Your task to perform on an android device: check battery use Image 0: 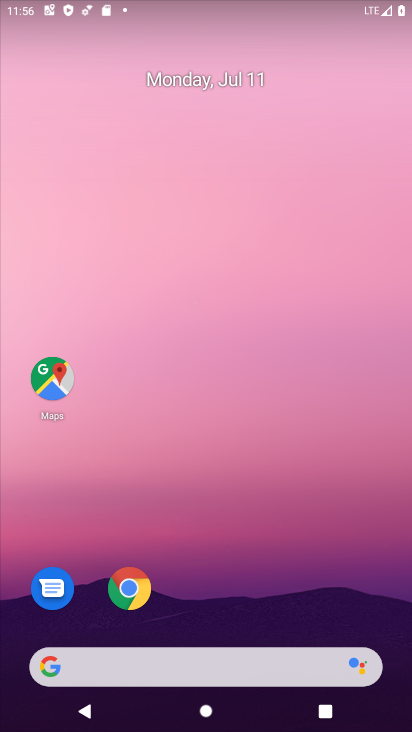
Step 0: drag from (266, 570) to (232, 160)
Your task to perform on an android device: check battery use Image 1: 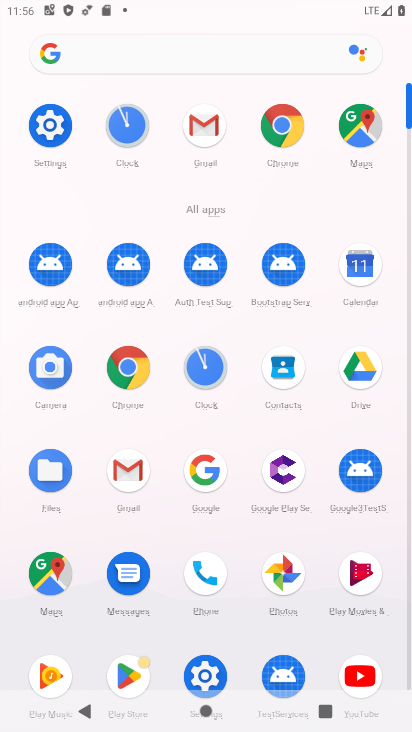
Step 1: click (43, 126)
Your task to perform on an android device: check battery use Image 2: 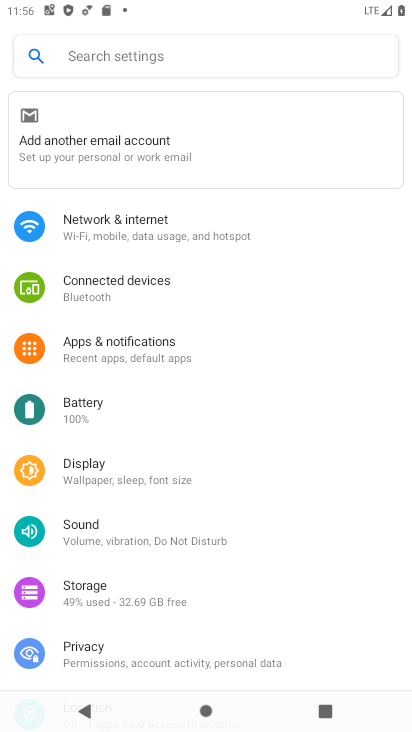
Step 2: drag from (191, 648) to (285, 92)
Your task to perform on an android device: check battery use Image 3: 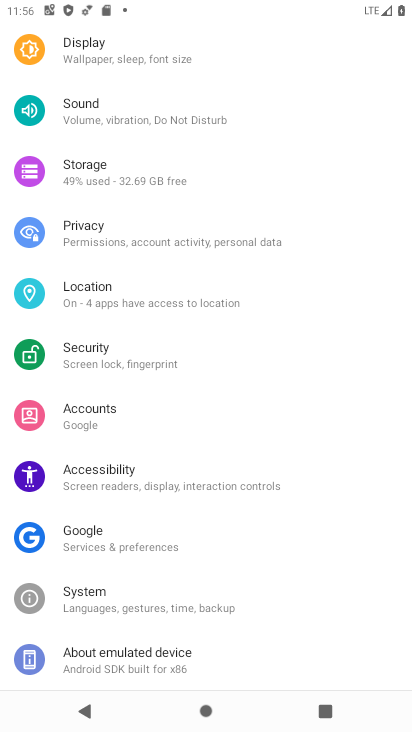
Step 3: drag from (195, 168) to (200, 465)
Your task to perform on an android device: check battery use Image 4: 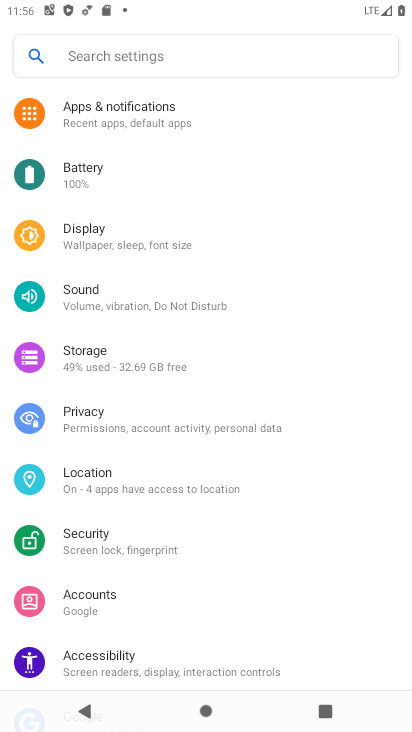
Step 4: click (90, 175)
Your task to perform on an android device: check battery use Image 5: 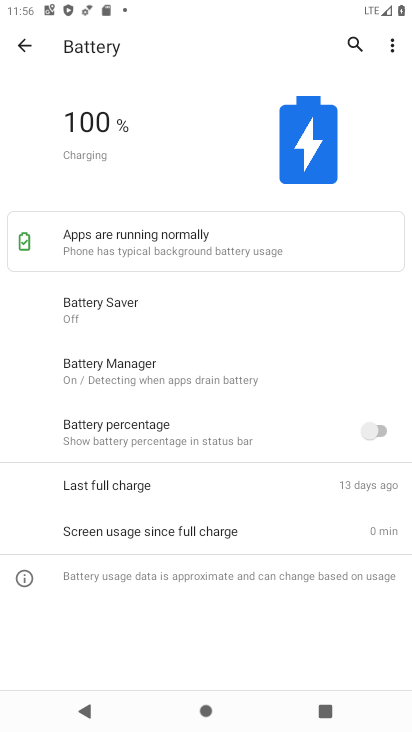
Step 5: click (390, 45)
Your task to perform on an android device: check battery use Image 6: 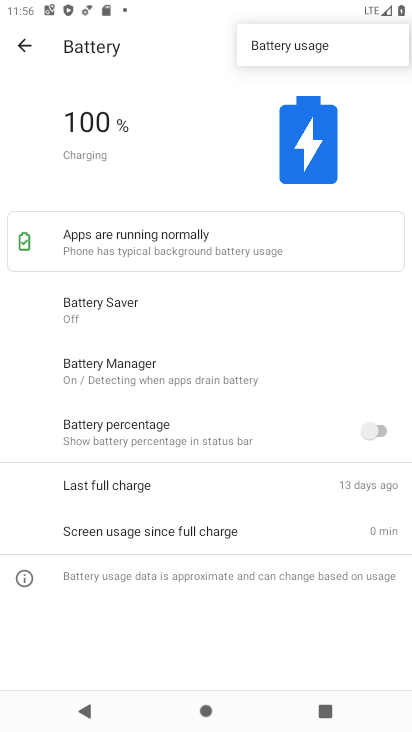
Step 6: click (331, 42)
Your task to perform on an android device: check battery use Image 7: 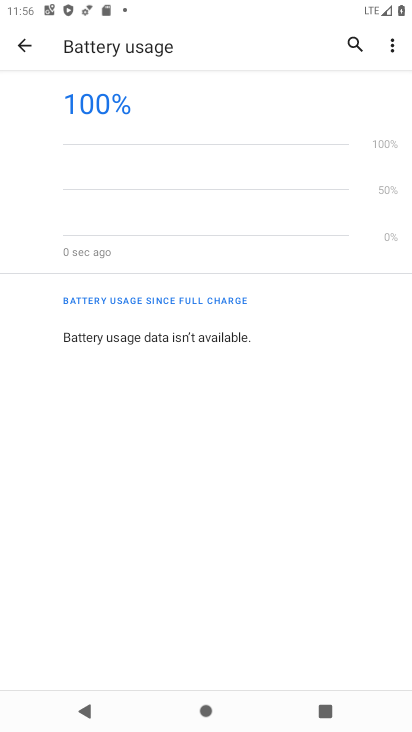
Step 7: task complete